Your task to perform on an android device: toggle show notifications on the lock screen Image 0: 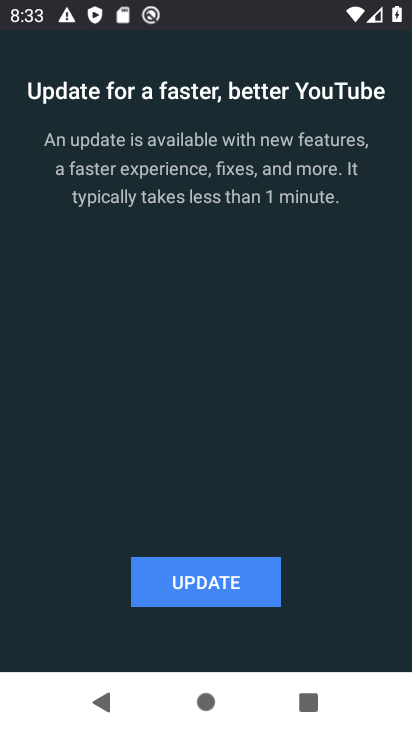
Step 0: press home button
Your task to perform on an android device: toggle show notifications on the lock screen Image 1: 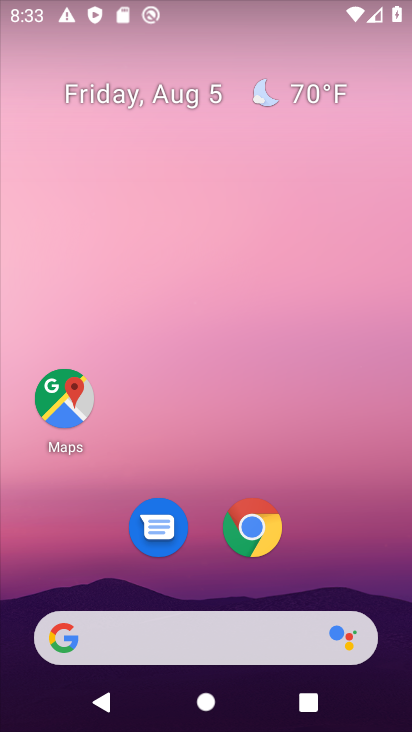
Step 1: drag from (250, 594) to (153, 126)
Your task to perform on an android device: toggle show notifications on the lock screen Image 2: 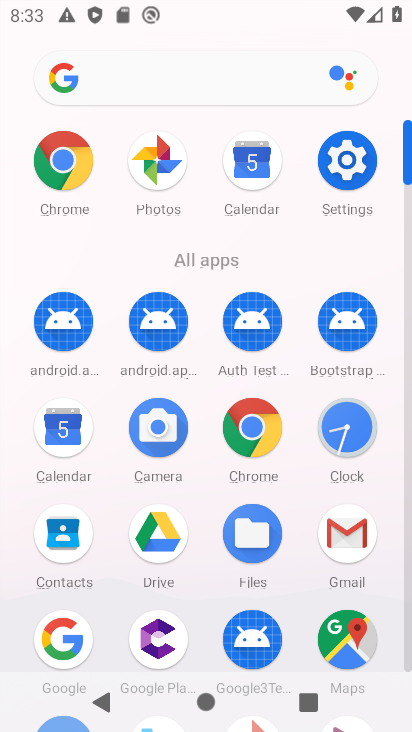
Step 2: click (347, 171)
Your task to perform on an android device: toggle show notifications on the lock screen Image 3: 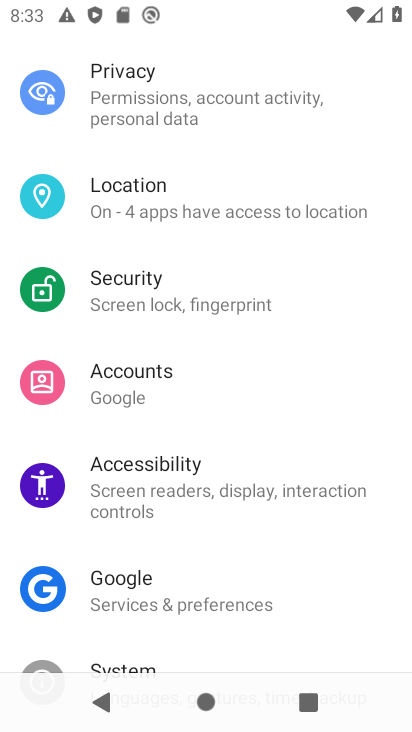
Step 3: drag from (236, 149) to (234, 480)
Your task to perform on an android device: toggle show notifications on the lock screen Image 4: 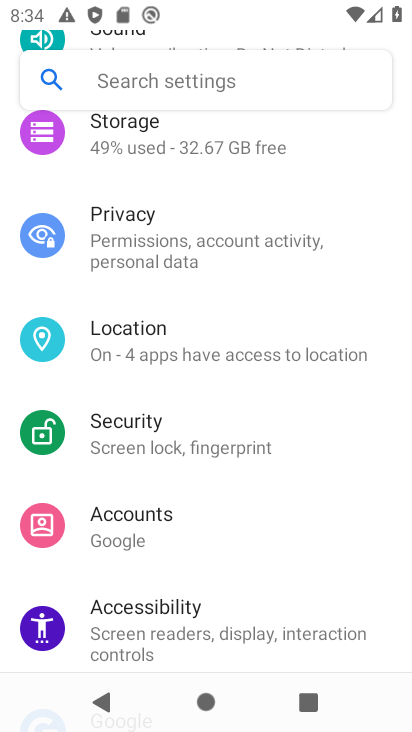
Step 4: drag from (211, 172) to (222, 455)
Your task to perform on an android device: toggle show notifications on the lock screen Image 5: 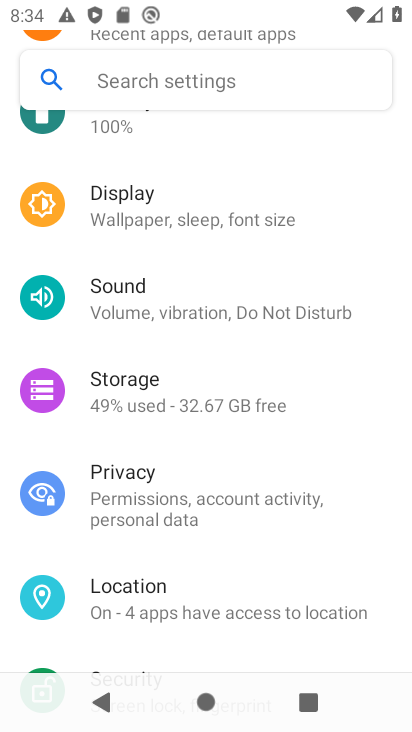
Step 5: drag from (163, 167) to (187, 457)
Your task to perform on an android device: toggle show notifications on the lock screen Image 6: 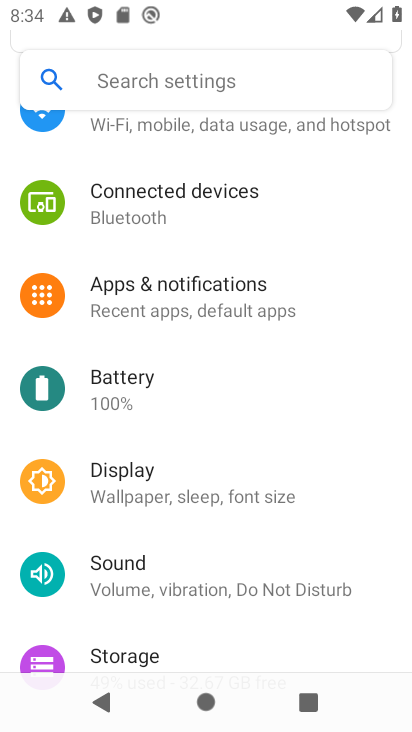
Step 6: click (225, 300)
Your task to perform on an android device: toggle show notifications on the lock screen Image 7: 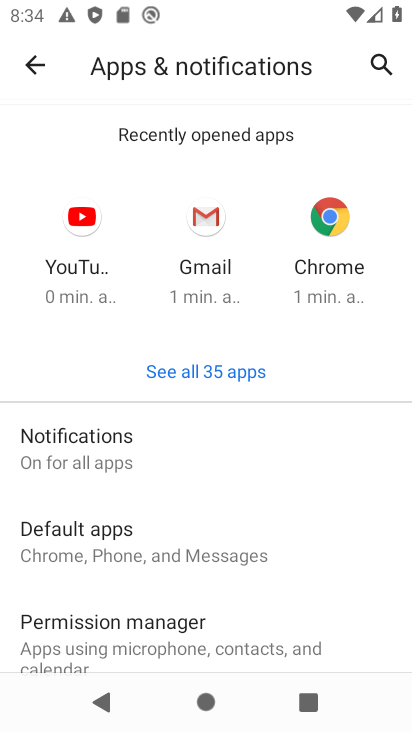
Step 7: click (162, 471)
Your task to perform on an android device: toggle show notifications on the lock screen Image 8: 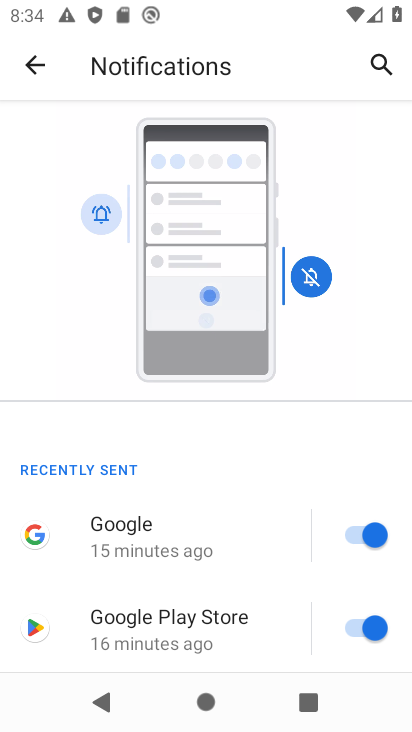
Step 8: drag from (196, 495) to (171, 63)
Your task to perform on an android device: toggle show notifications on the lock screen Image 9: 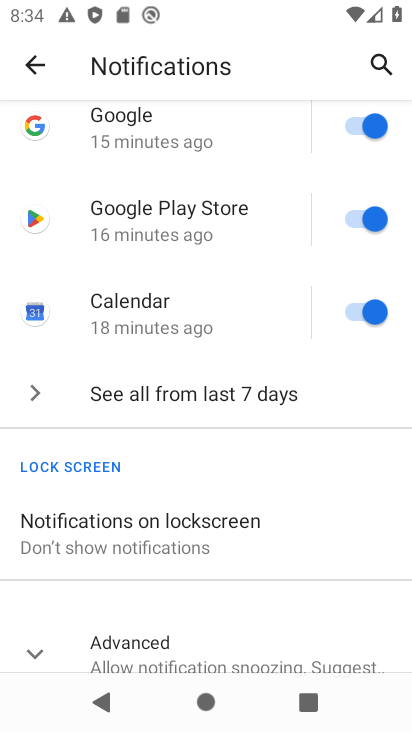
Step 9: click (208, 525)
Your task to perform on an android device: toggle show notifications on the lock screen Image 10: 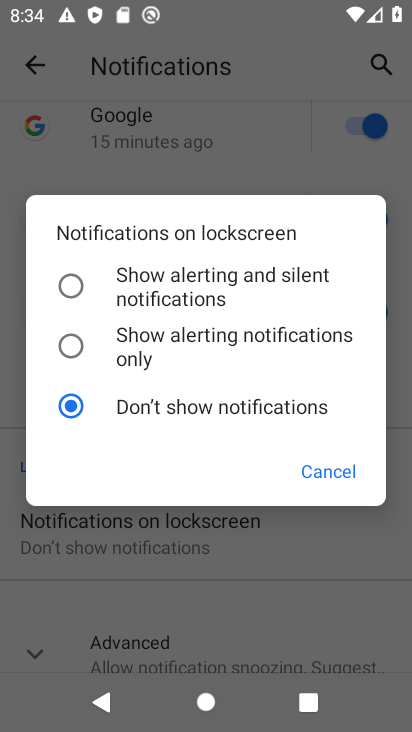
Step 10: click (216, 288)
Your task to perform on an android device: toggle show notifications on the lock screen Image 11: 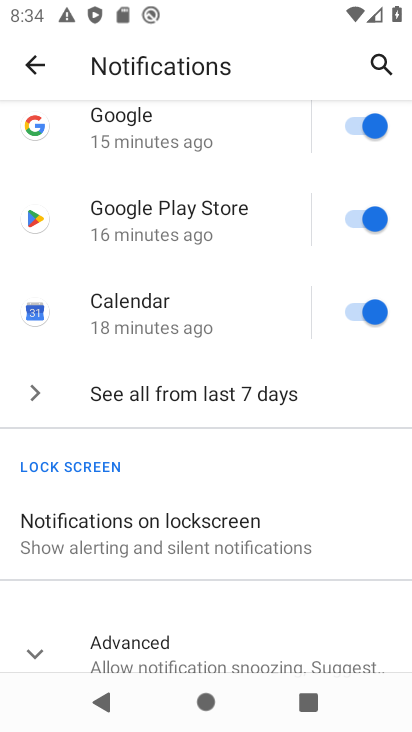
Step 11: task complete